Your task to perform on an android device: turn on location history Image 0: 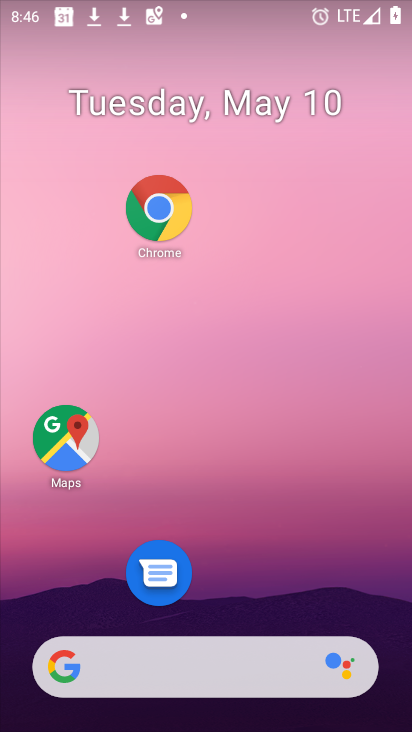
Step 0: press home button
Your task to perform on an android device: turn on location history Image 1: 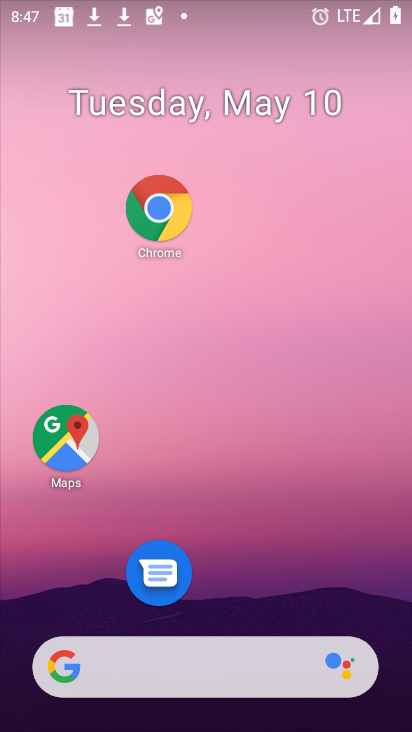
Step 1: drag from (282, 677) to (280, 197)
Your task to perform on an android device: turn on location history Image 2: 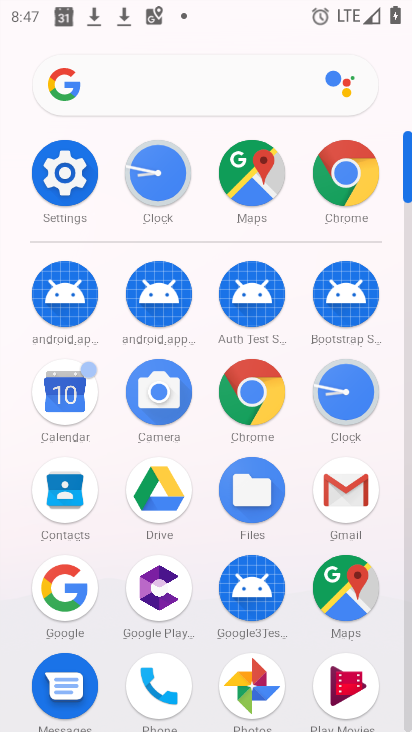
Step 2: click (73, 169)
Your task to perform on an android device: turn on location history Image 3: 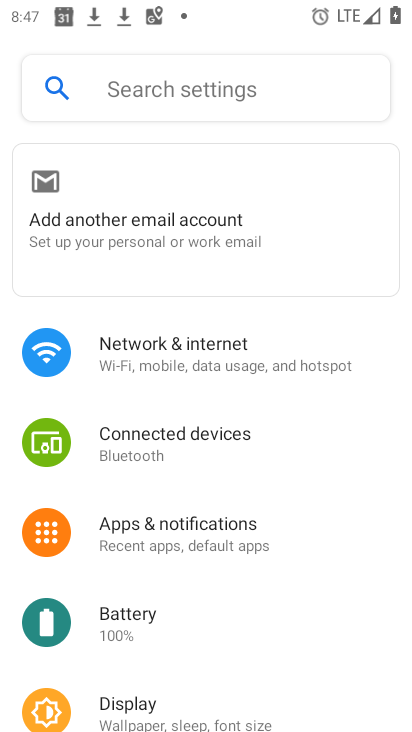
Step 3: click (225, 84)
Your task to perform on an android device: turn on location history Image 4: 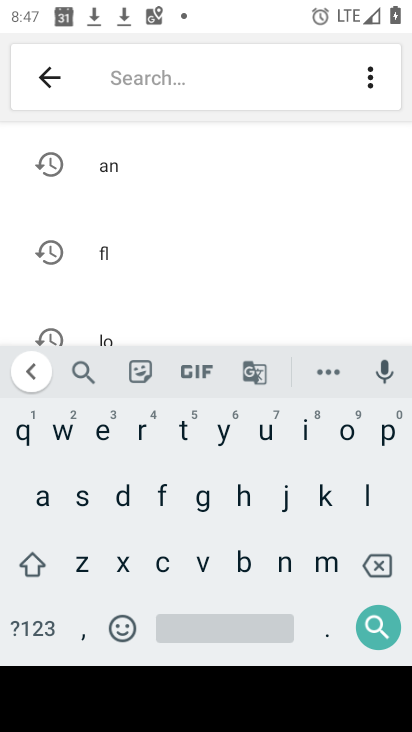
Step 4: click (128, 328)
Your task to perform on an android device: turn on location history Image 5: 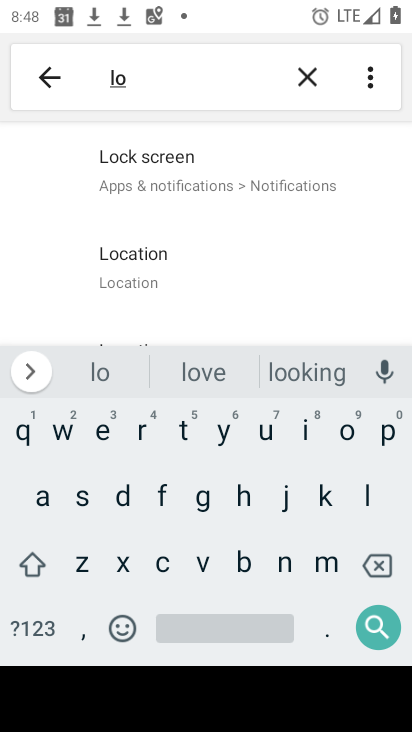
Step 5: click (124, 262)
Your task to perform on an android device: turn on location history Image 6: 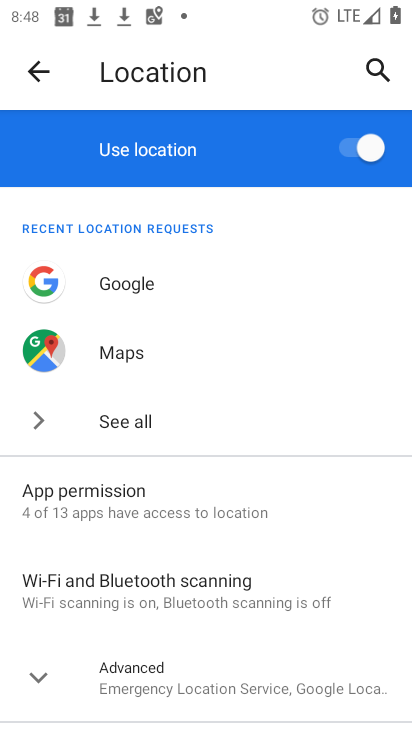
Step 6: drag from (209, 638) to (254, 342)
Your task to perform on an android device: turn on location history Image 7: 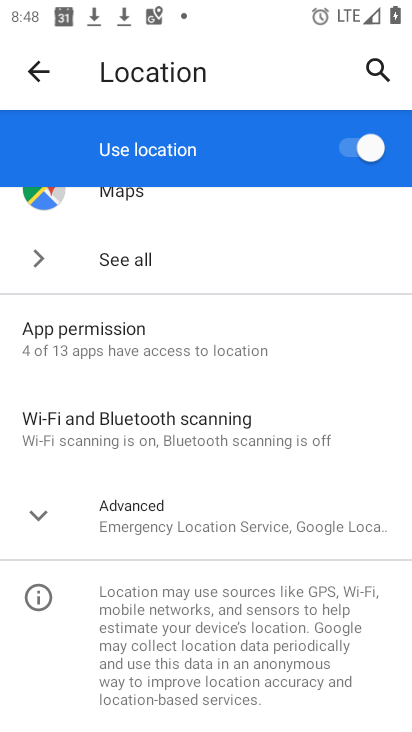
Step 7: click (100, 519)
Your task to perform on an android device: turn on location history Image 8: 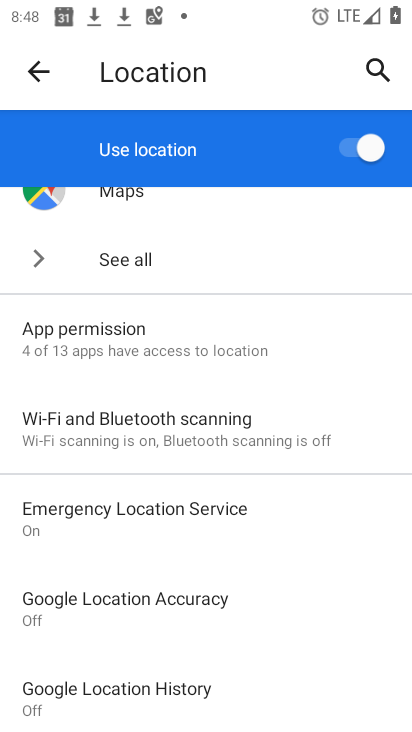
Step 8: click (122, 689)
Your task to perform on an android device: turn on location history Image 9: 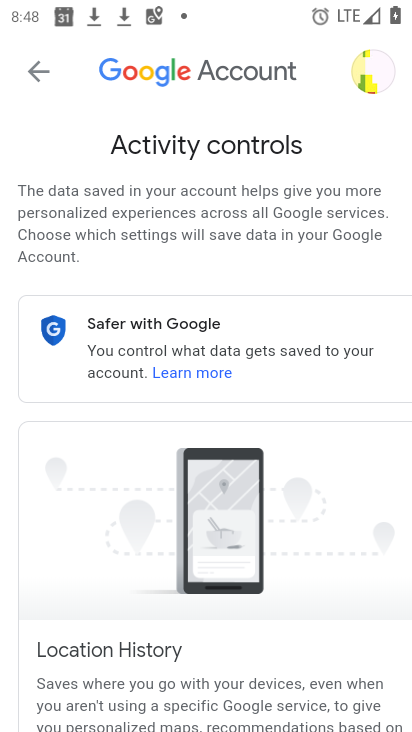
Step 9: task complete